Your task to perform on an android device: install app "Nova Launcher" Image 0: 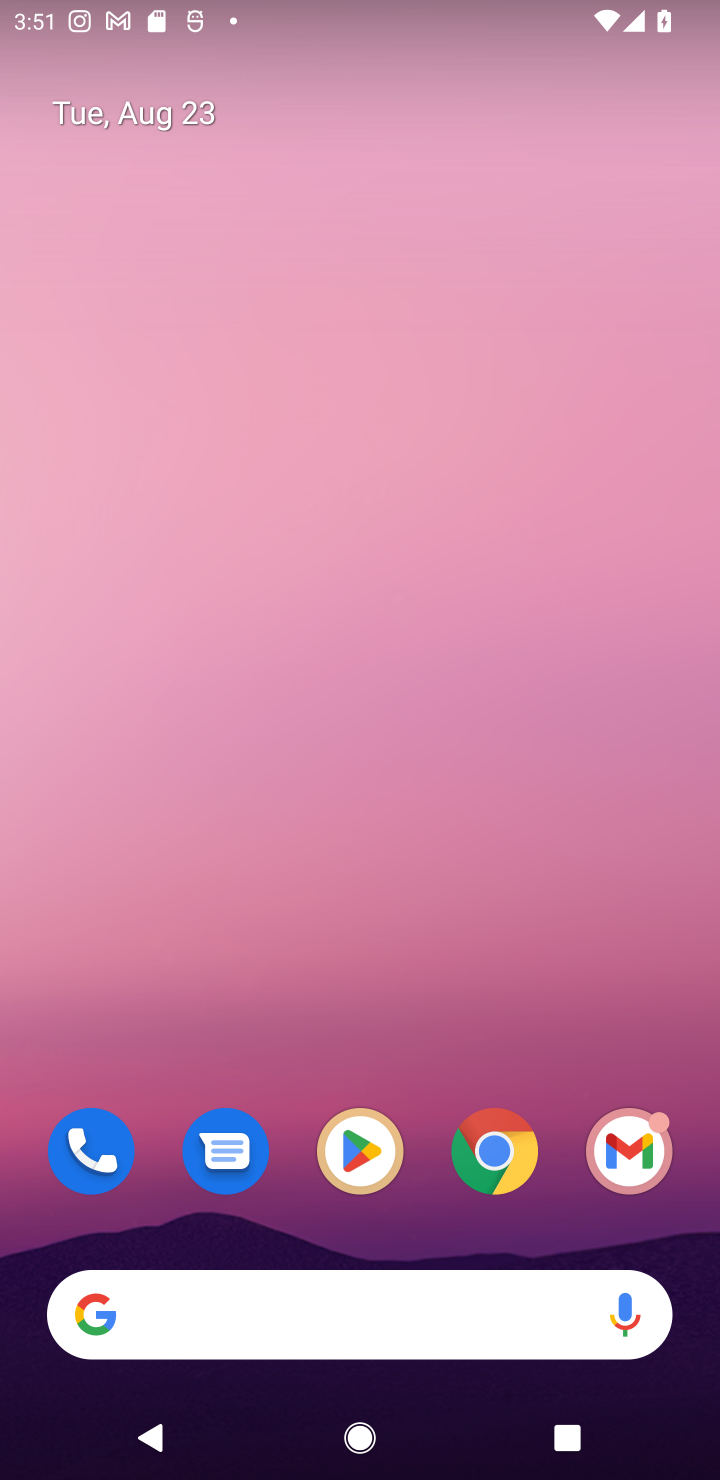
Step 0: click (351, 1166)
Your task to perform on an android device: install app "Nova Launcher" Image 1: 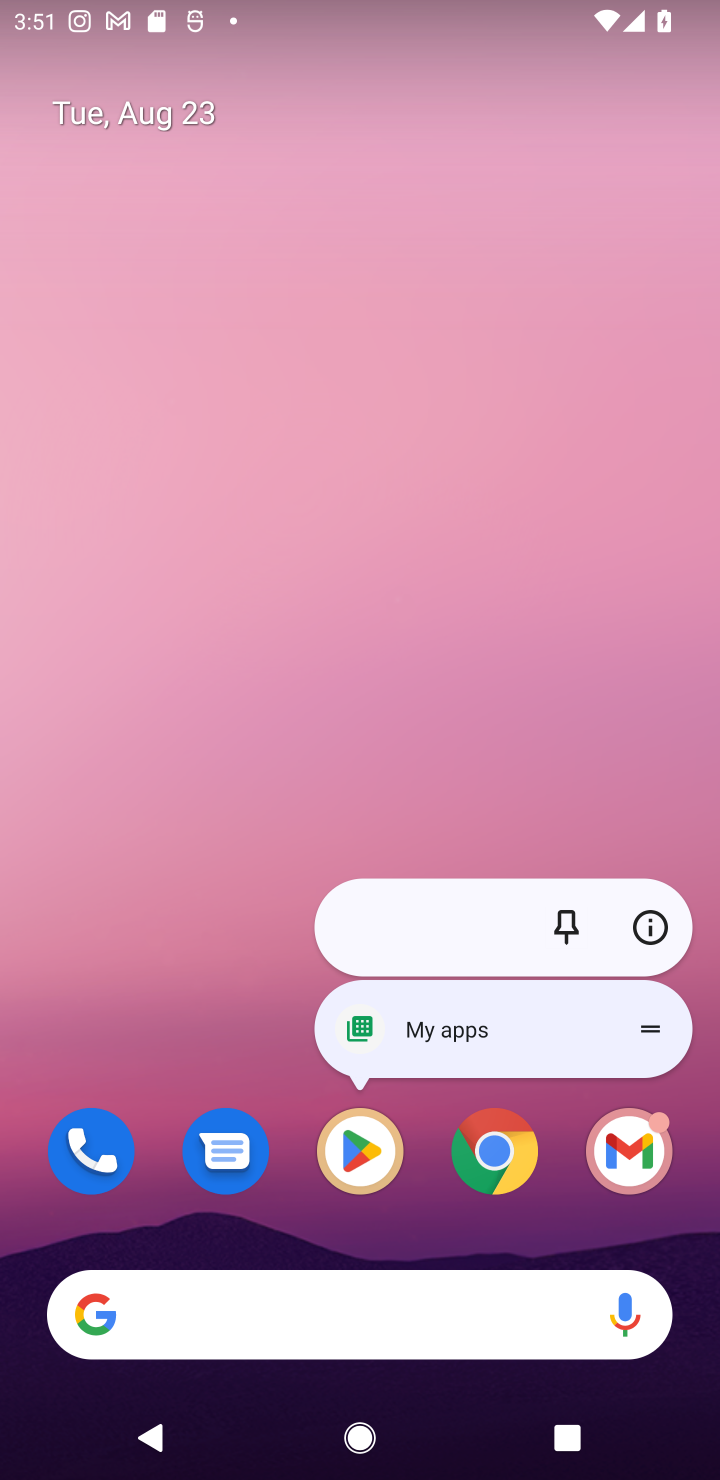
Step 1: click (351, 1175)
Your task to perform on an android device: install app "Nova Launcher" Image 2: 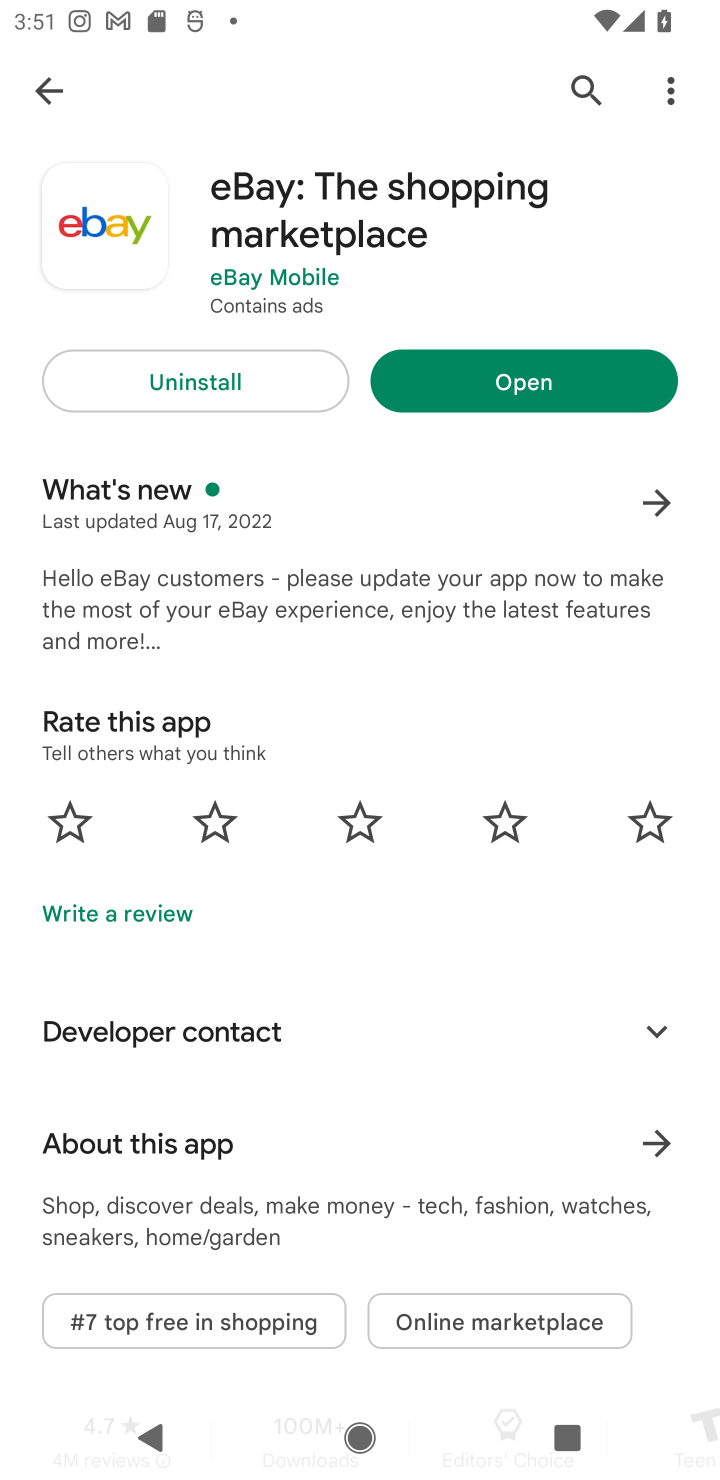
Step 2: click (580, 81)
Your task to perform on an android device: install app "Nova Launcher" Image 3: 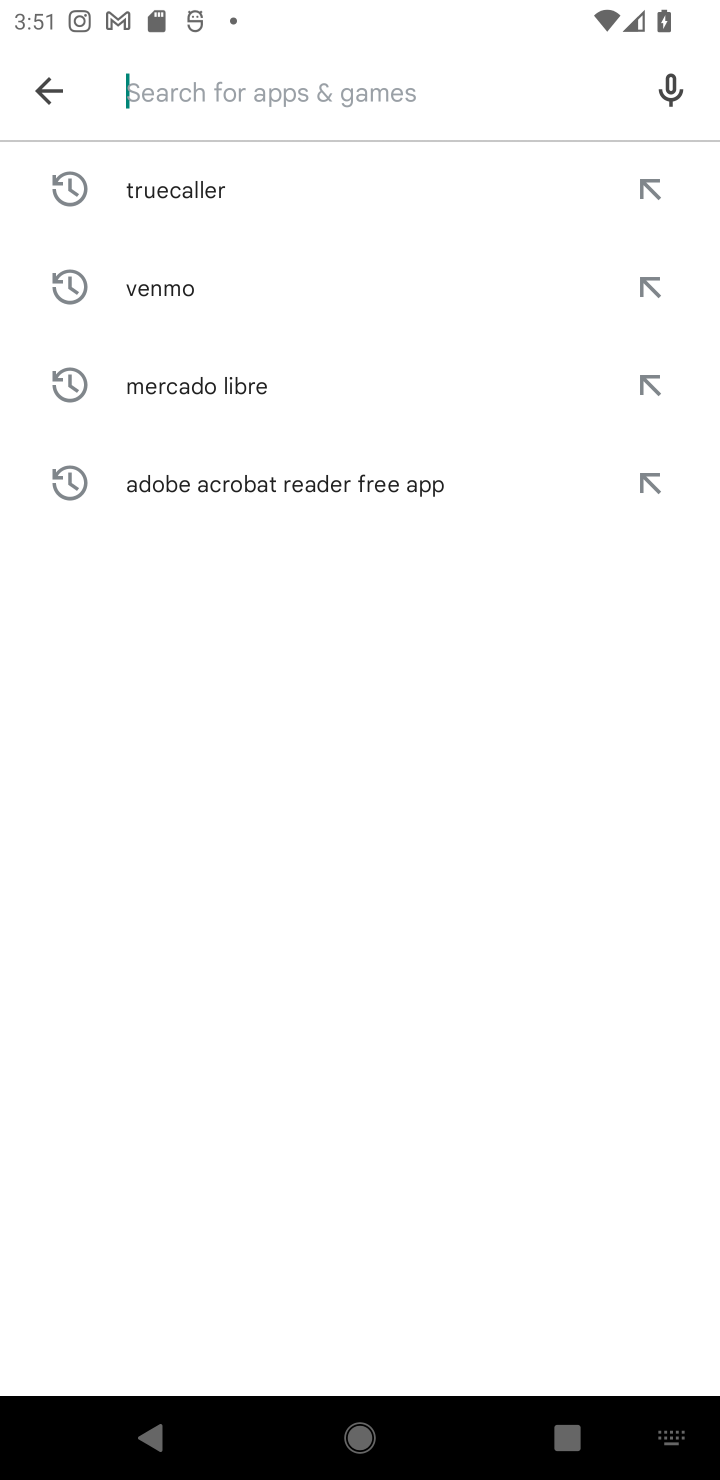
Step 3: type "Nova Launcher"
Your task to perform on an android device: install app "Nova Launcher" Image 4: 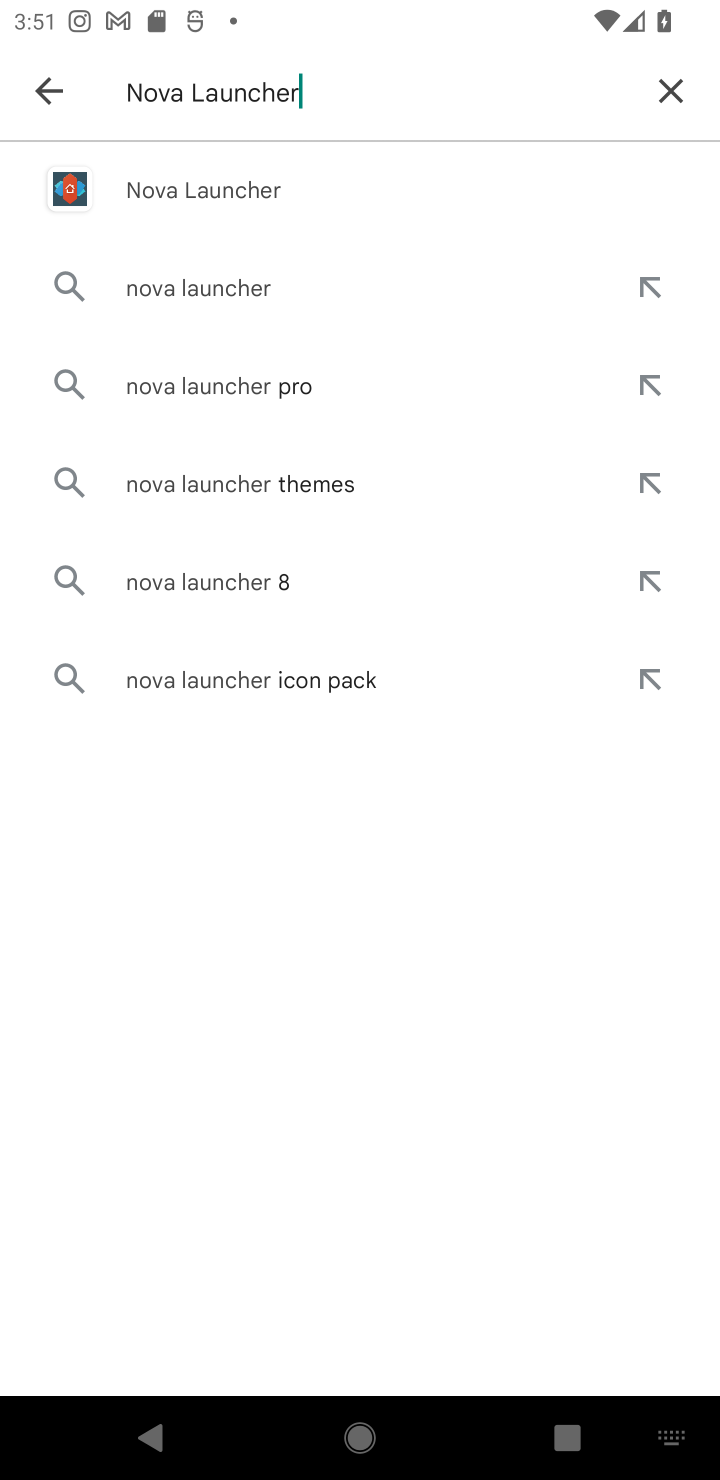
Step 4: click (190, 183)
Your task to perform on an android device: install app "Nova Launcher" Image 5: 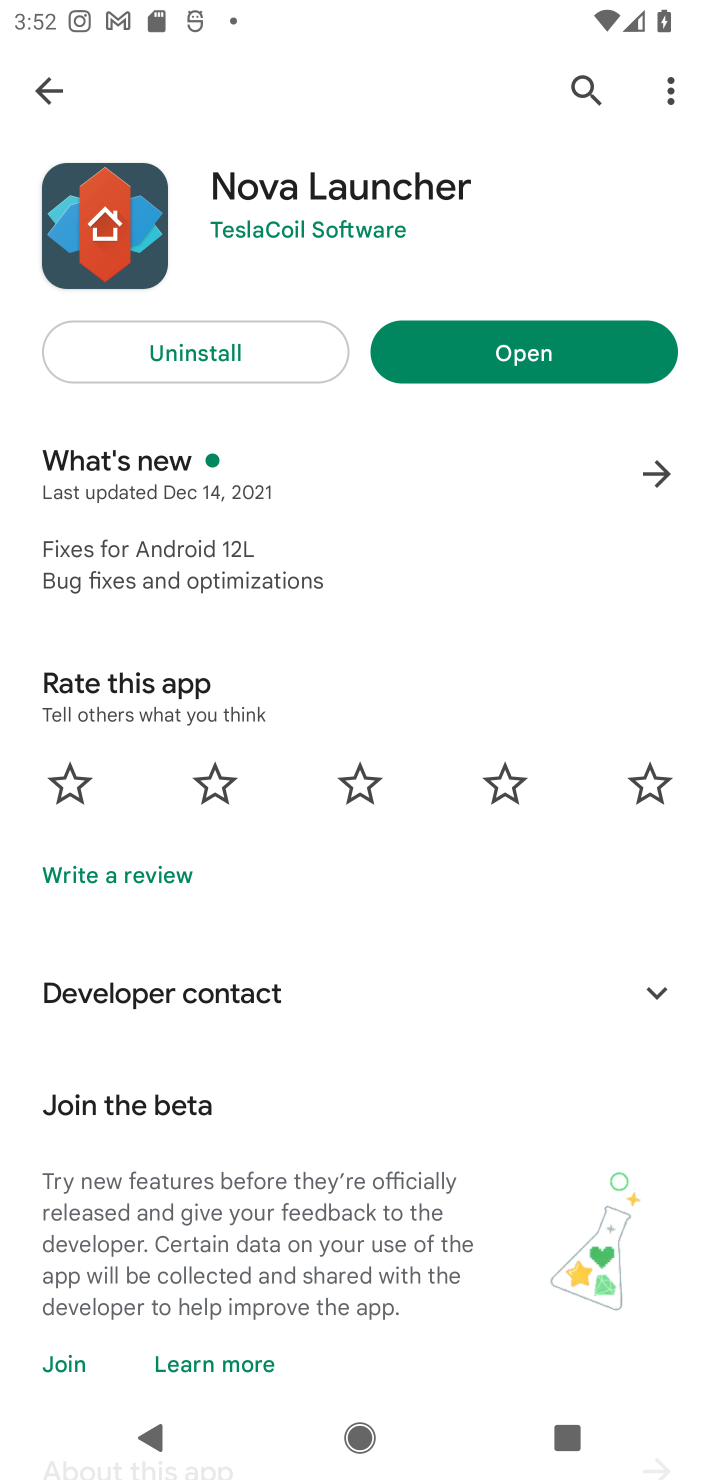
Step 5: click (576, 358)
Your task to perform on an android device: install app "Nova Launcher" Image 6: 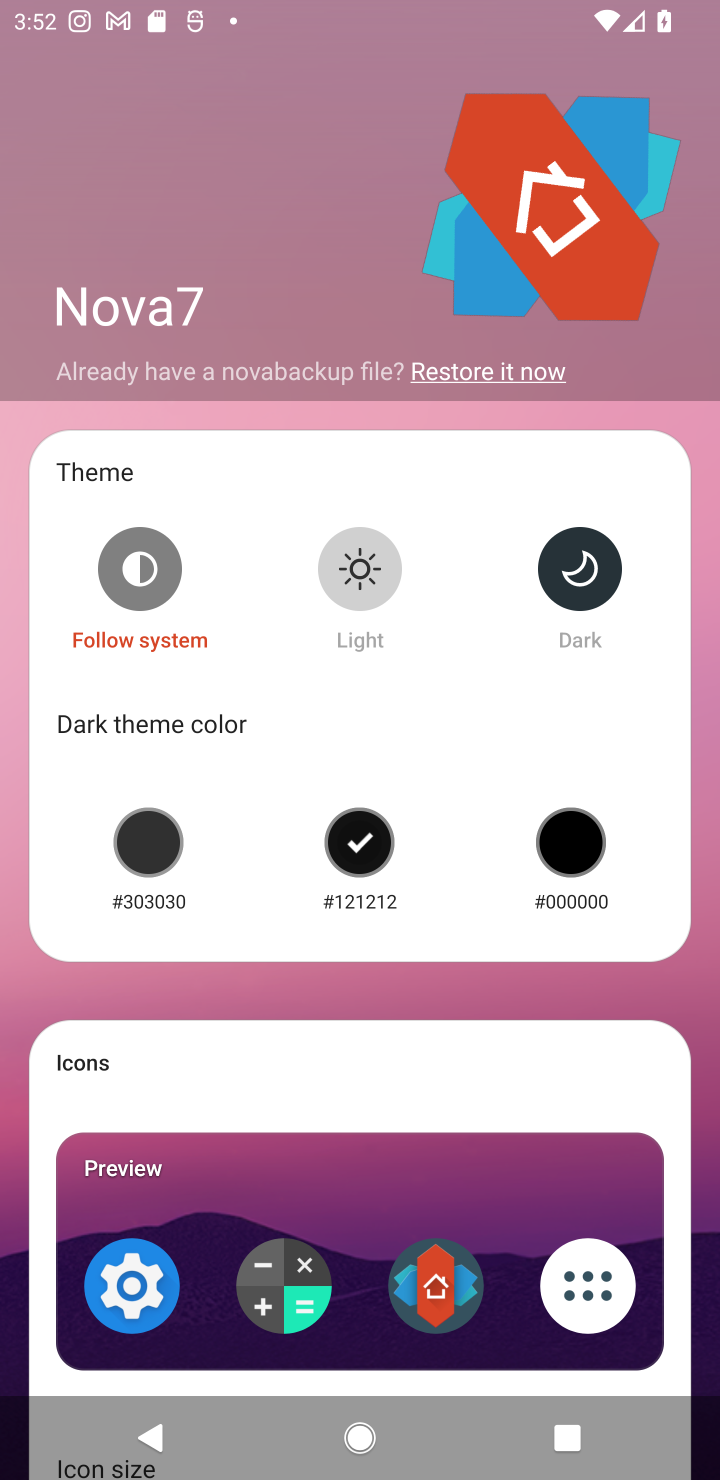
Step 6: task complete